Your task to perform on an android device: create a new album in the google photos Image 0: 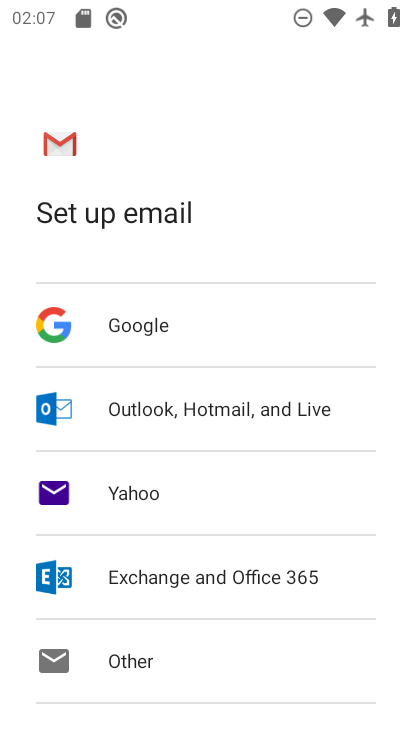
Step 0: press home button
Your task to perform on an android device: create a new album in the google photos Image 1: 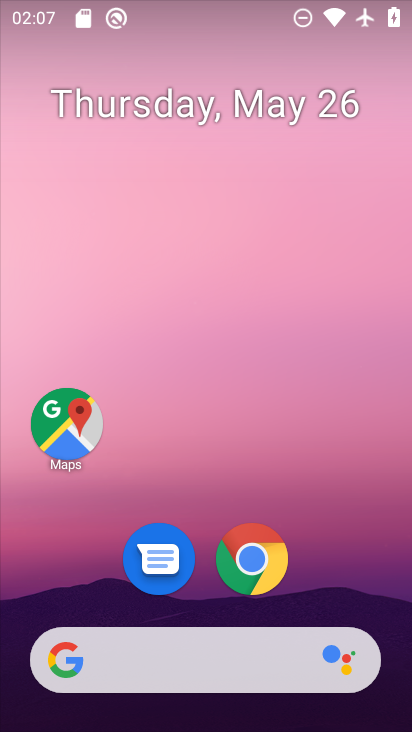
Step 1: drag from (216, 632) to (257, 199)
Your task to perform on an android device: create a new album in the google photos Image 2: 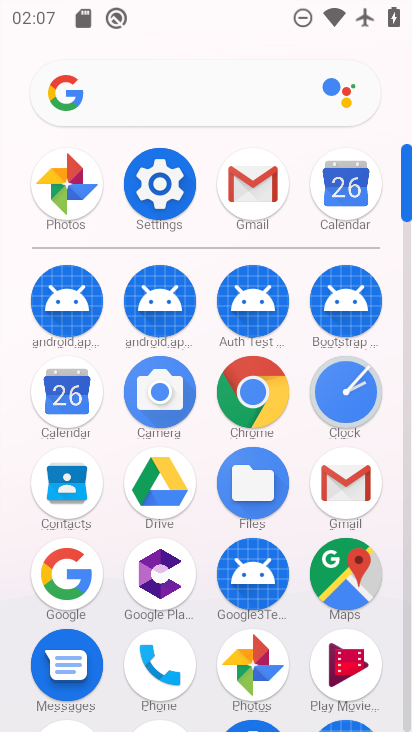
Step 2: click (258, 661)
Your task to perform on an android device: create a new album in the google photos Image 3: 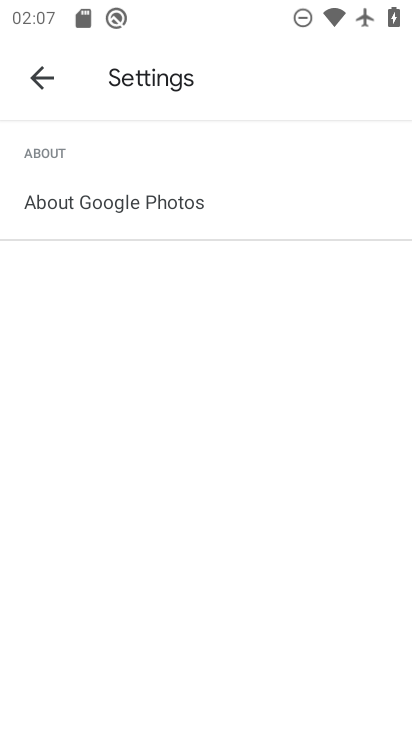
Step 3: click (38, 79)
Your task to perform on an android device: create a new album in the google photos Image 4: 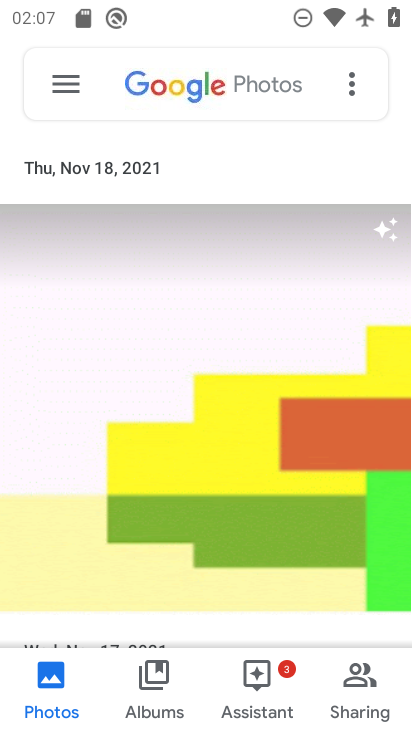
Step 4: click (147, 700)
Your task to perform on an android device: create a new album in the google photos Image 5: 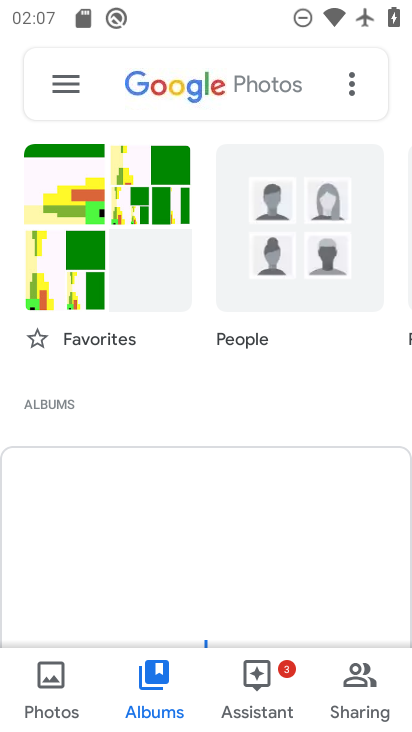
Step 5: drag from (167, 530) to (211, 183)
Your task to perform on an android device: create a new album in the google photos Image 6: 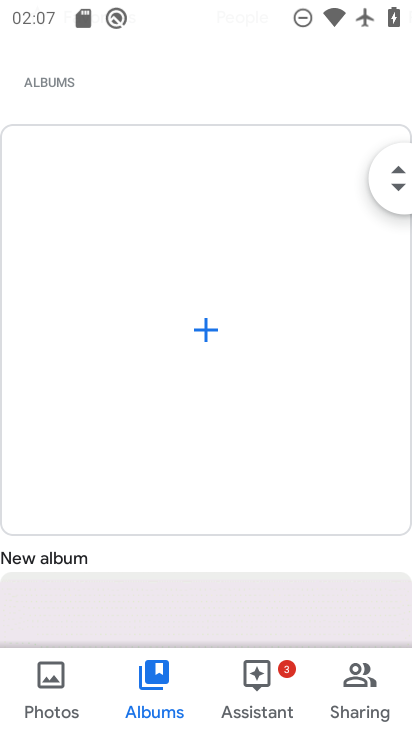
Step 6: click (204, 328)
Your task to perform on an android device: create a new album in the google photos Image 7: 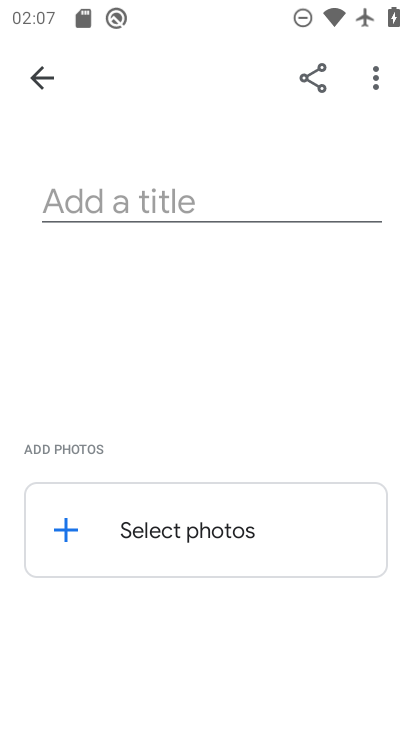
Step 7: click (234, 528)
Your task to perform on an android device: create a new album in the google photos Image 8: 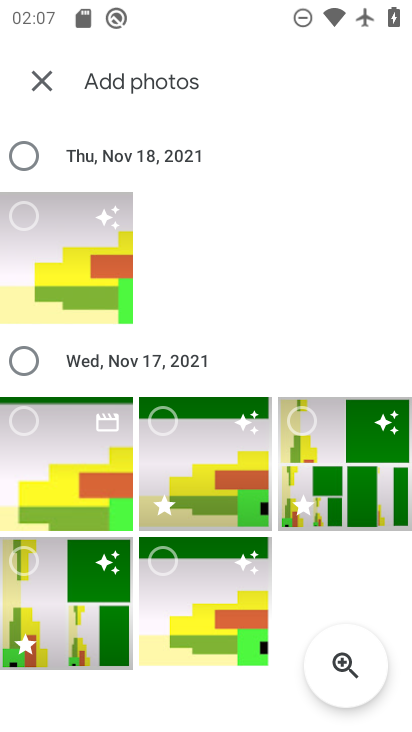
Step 8: click (45, 290)
Your task to perform on an android device: create a new album in the google photos Image 9: 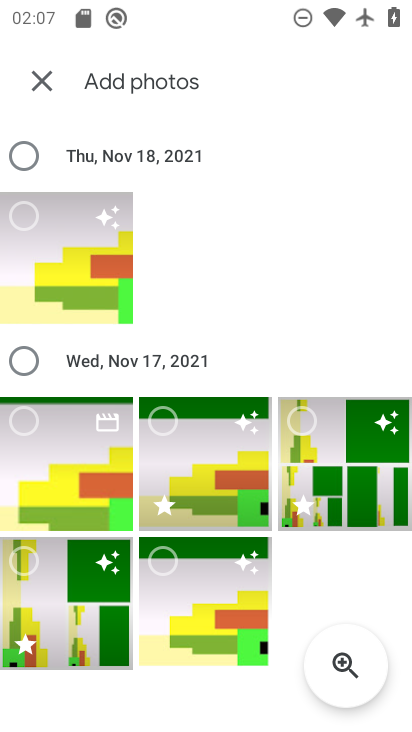
Step 9: click (65, 465)
Your task to perform on an android device: create a new album in the google photos Image 10: 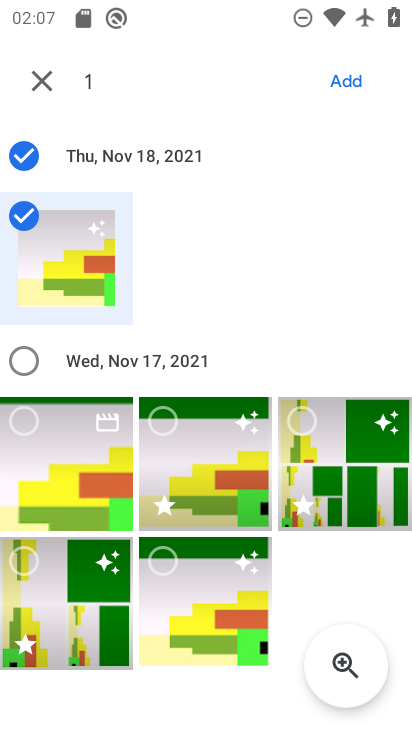
Step 10: click (202, 472)
Your task to perform on an android device: create a new album in the google photos Image 11: 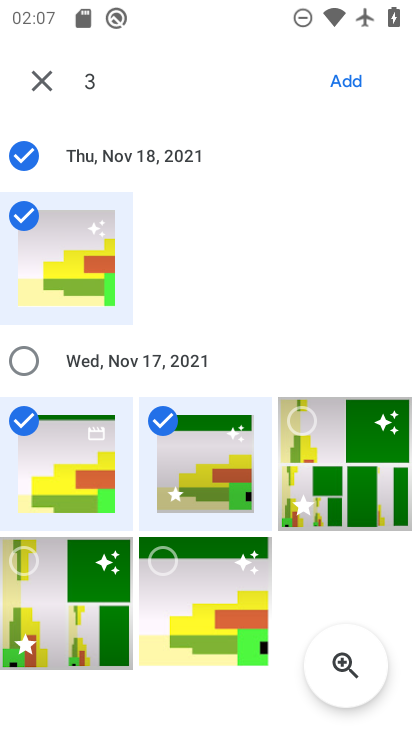
Step 11: click (336, 76)
Your task to perform on an android device: create a new album in the google photos Image 12: 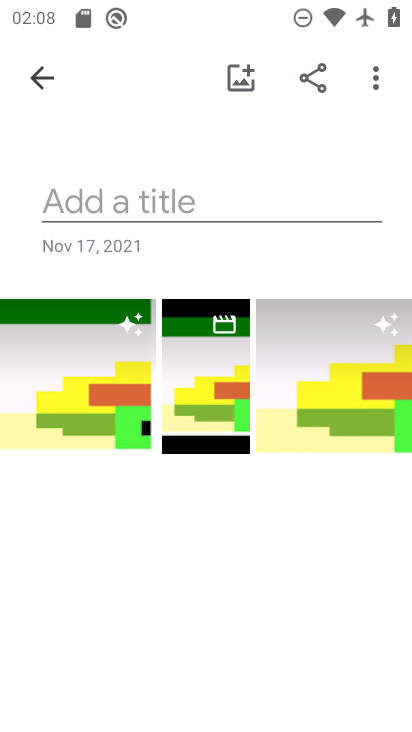
Step 12: task complete